Your task to perform on an android device: Open maps Image 0: 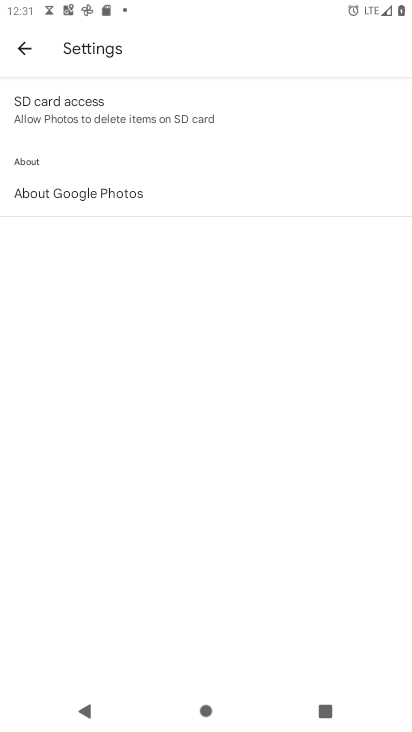
Step 0: press home button
Your task to perform on an android device: Open maps Image 1: 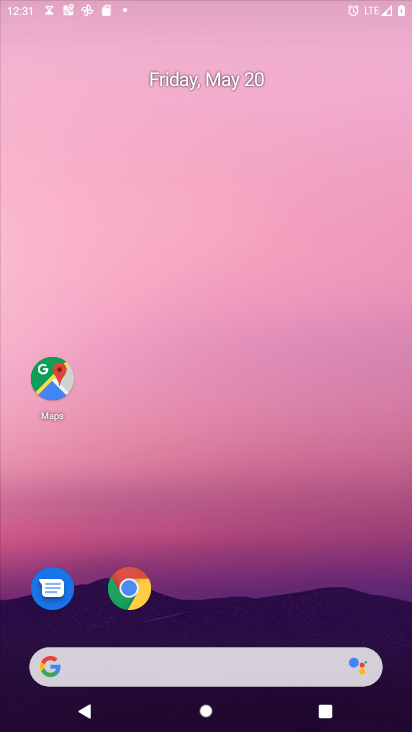
Step 1: drag from (288, 587) to (126, 16)
Your task to perform on an android device: Open maps Image 2: 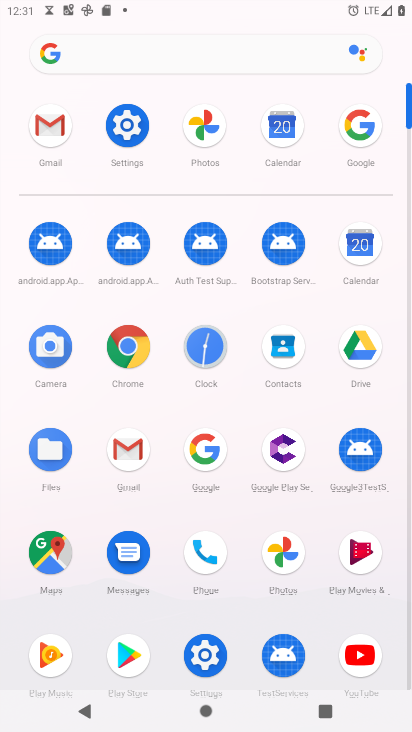
Step 2: click (61, 553)
Your task to perform on an android device: Open maps Image 3: 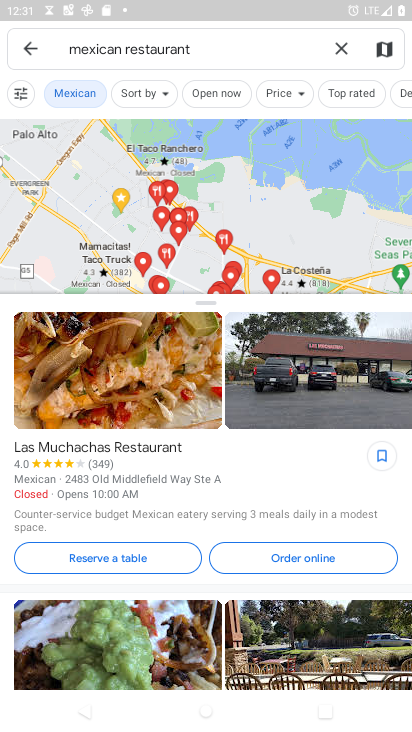
Step 3: task complete